Your task to perform on an android device: turn on sleep mode Image 0: 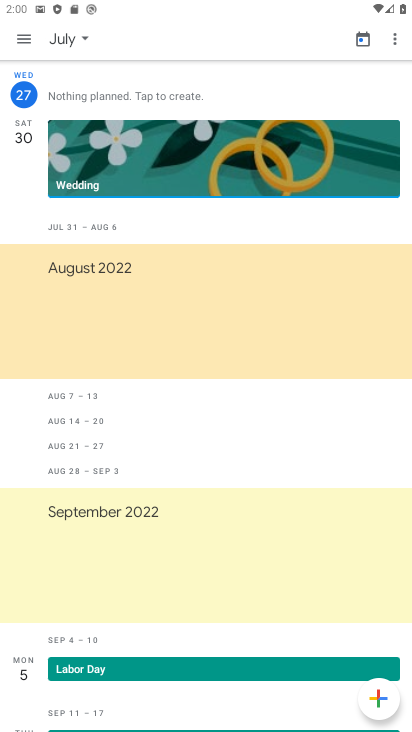
Step 0: press home button
Your task to perform on an android device: turn on sleep mode Image 1: 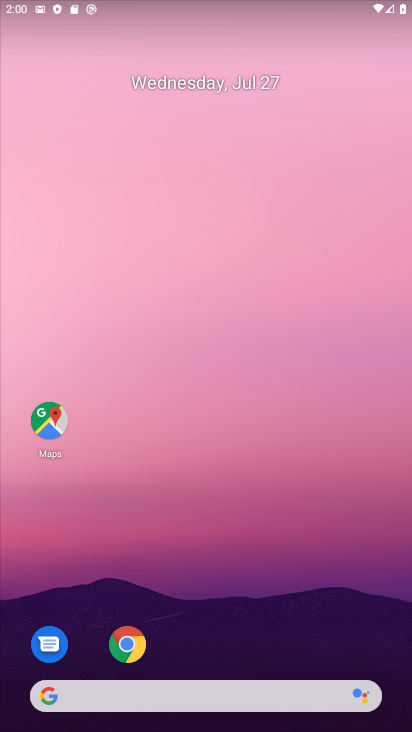
Step 1: drag from (248, 352) to (233, 8)
Your task to perform on an android device: turn on sleep mode Image 2: 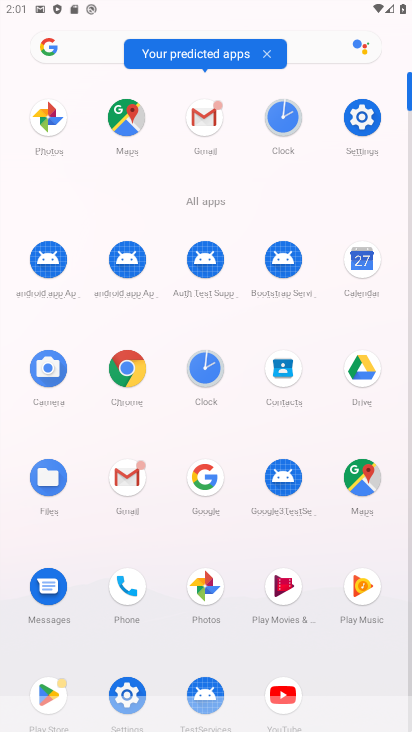
Step 2: click (124, 688)
Your task to perform on an android device: turn on sleep mode Image 3: 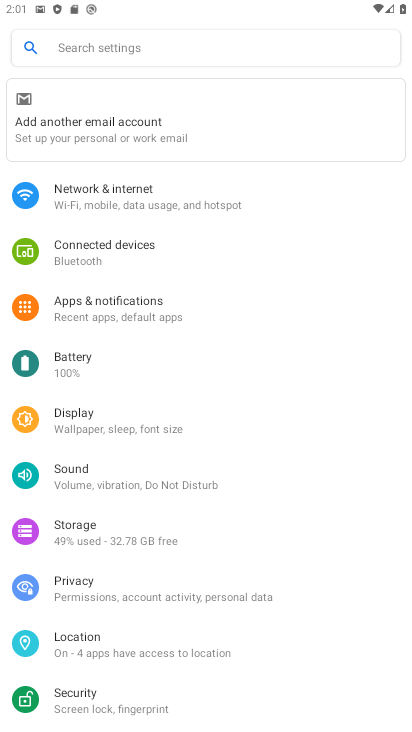
Step 3: click (216, 44)
Your task to perform on an android device: turn on sleep mode Image 4: 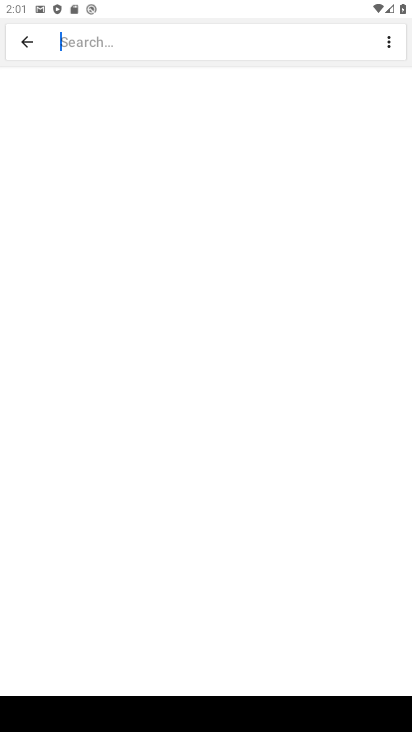
Step 4: type "sleep mode"
Your task to perform on an android device: turn on sleep mode Image 5: 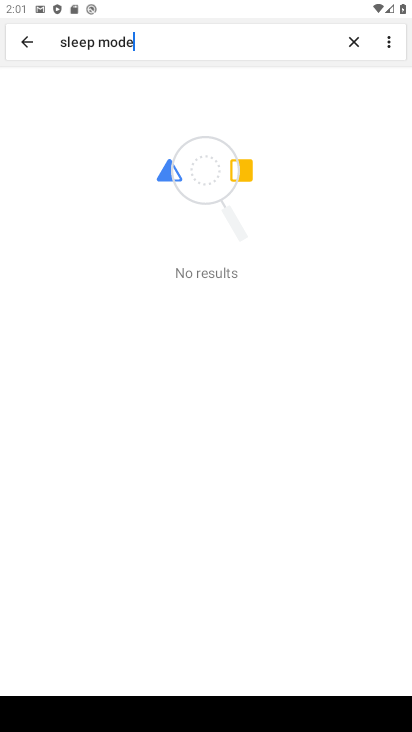
Step 5: task complete